Your task to perform on an android device: Check the weather Image 0: 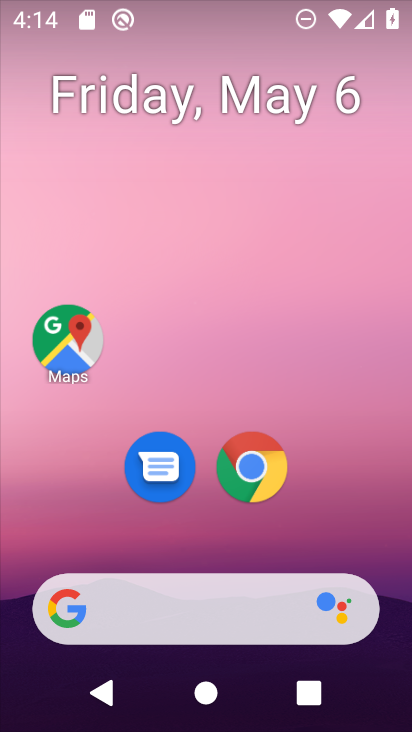
Step 0: drag from (311, 543) to (291, 102)
Your task to perform on an android device: Check the weather Image 1: 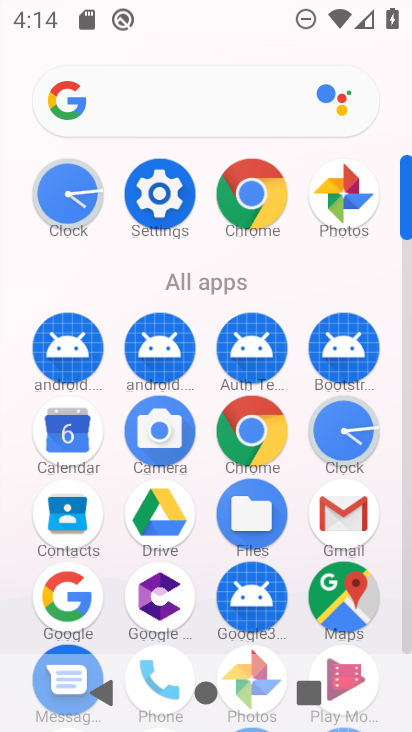
Step 1: click (66, 621)
Your task to perform on an android device: Check the weather Image 2: 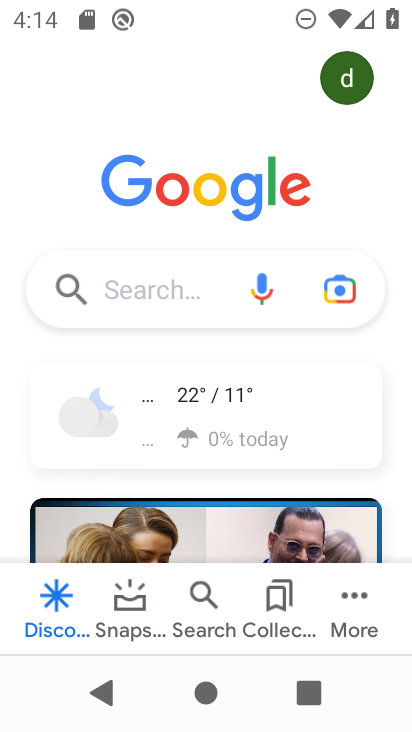
Step 2: click (229, 409)
Your task to perform on an android device: Check the weather Image 3: 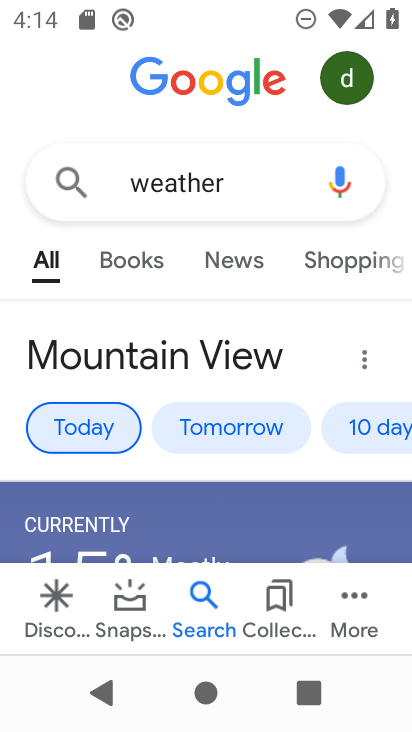
Step 3: task complete